Your task to perform on an android device: turn on the 12-hour format for clock Image 0: 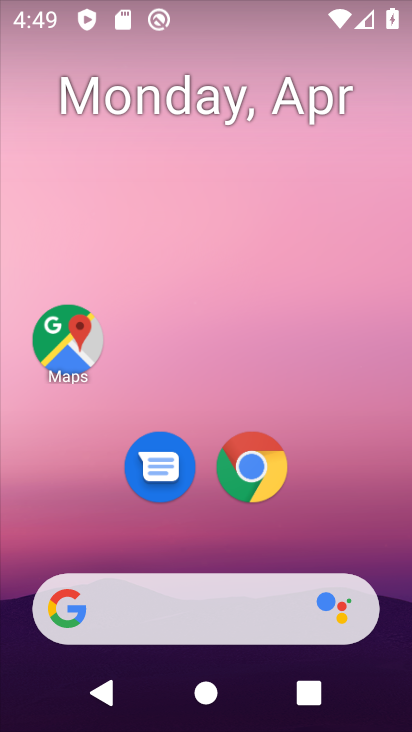
Step 0: drag from (292, 620) to (262, 0)
Your task to perform on an android device: turn on the 12-hour format for clock Image 1: 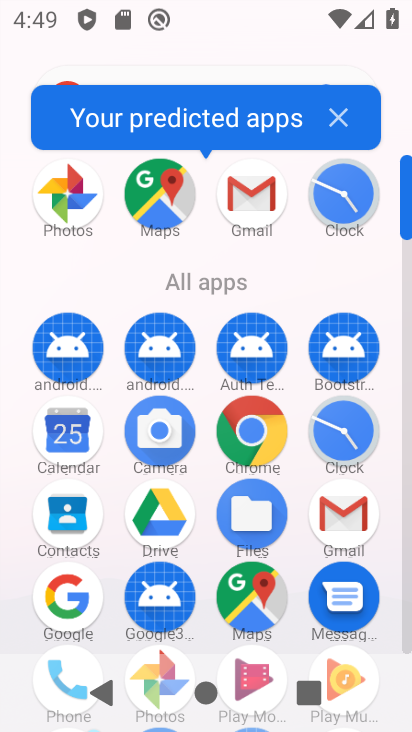
Step 1: click (347, 435)
Your task to perform on an android device: turn on the 12-hour format for clock Image 2: 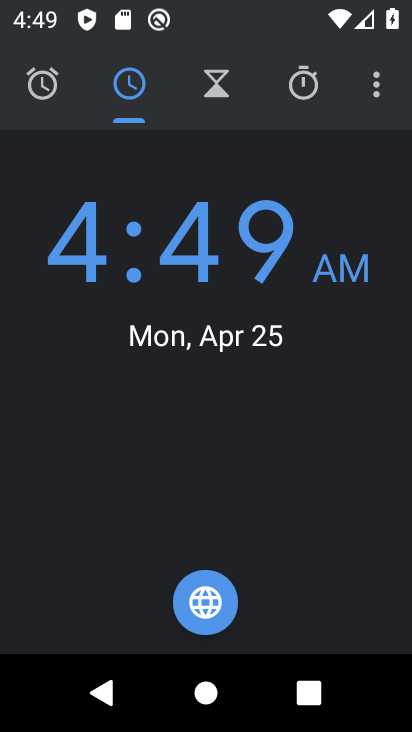
Step 2: click (368, 73)
Your task to perform on an android device: turn on the 12-hour format for clock Image 3: 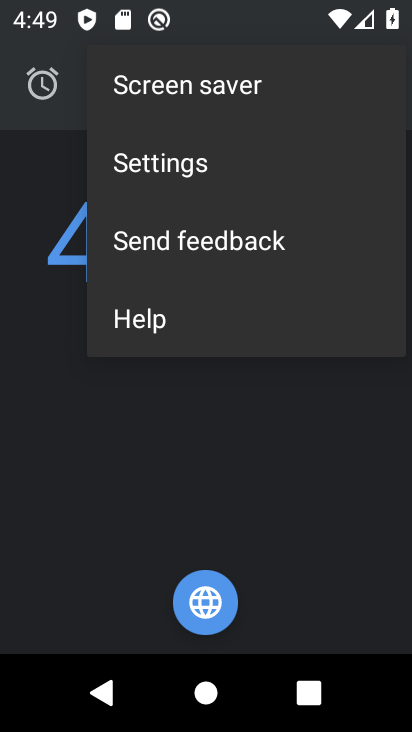
Step 3: click (194, 156)
Your task to perform on an android device: turn on the 12-hour format for clock Image 4: 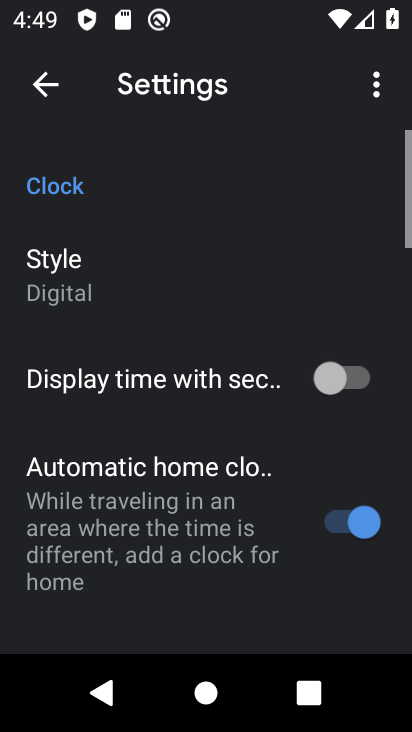
Step 4: drag from (220, 640) to (280, 78)
Your task to perform on an android device: turn on the 12-hour format for clock Image 5: 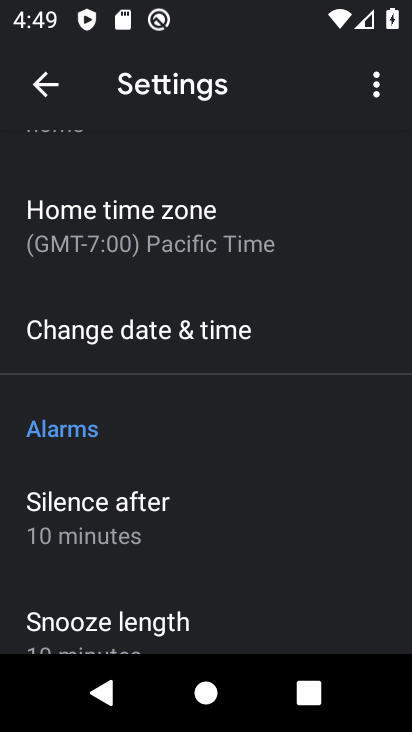
Step 5: click (242, 325)
Your task to perform on an android device: turn on the 12-hour format for clock Image 6: 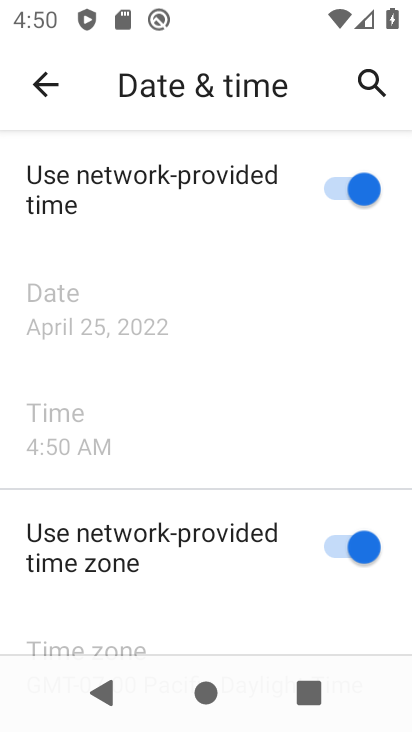
Step 6: drag from (323, 633) to (363, 29)
Your task to perform on an android device: turn on the 12-hour format for clock Image 7: 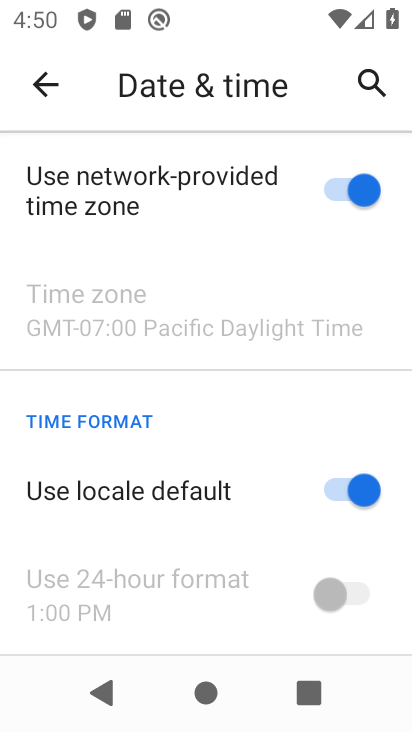
Step 7: click (327, 488)
Your task to perform on an android device: turn on the 12-hour format for clock Image 8: 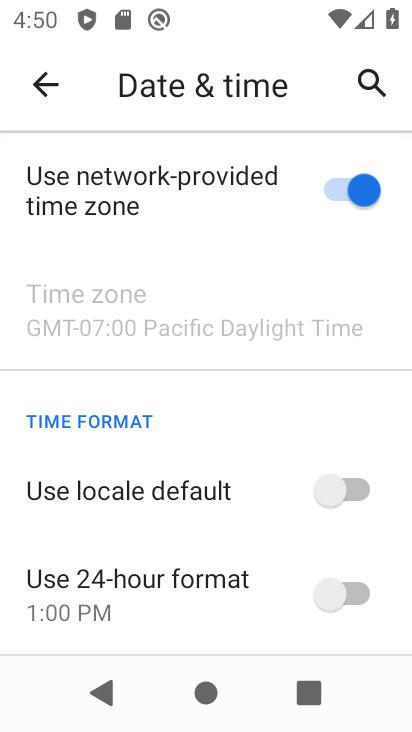
Step 8: task complete